Your task to perform on an android device: Turn on the flashlight Image 0: 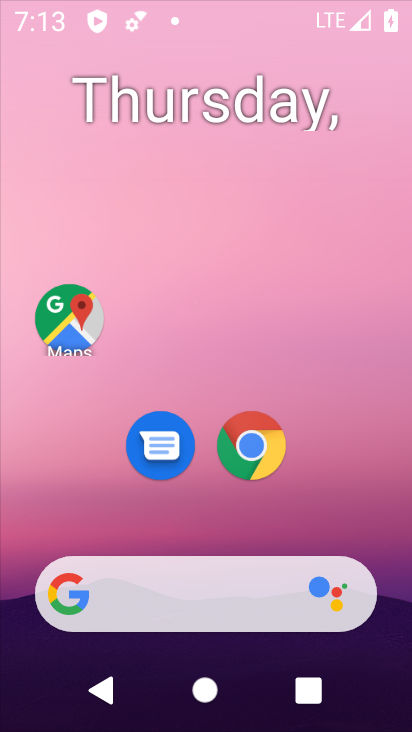
Step 0: drag from (284, 553) to (332, 222)
Your task to perform on an android device: Turn on the flashlight Image 1: 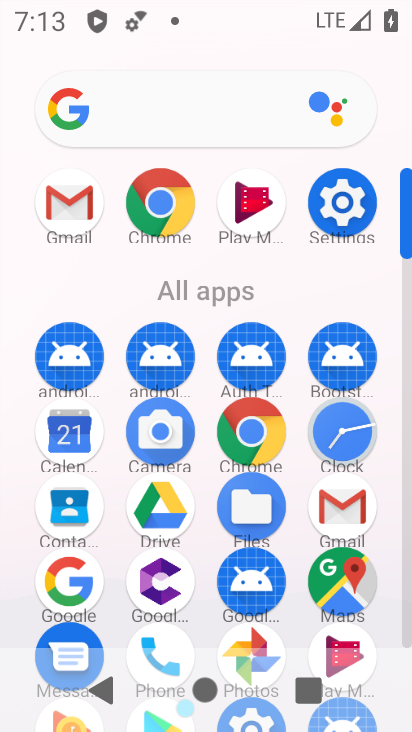
Step 1: task complete